Your task to perform on an android device: Is it going to rain tomorrow? Image 0: 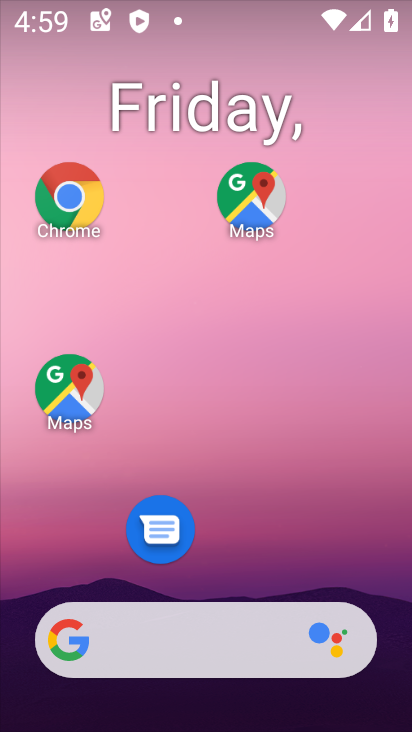
Step 0: drag from (272, 567) to (306, 107)
Your task to perform on an android device: Is it going to rain tomorrow? Image 1: 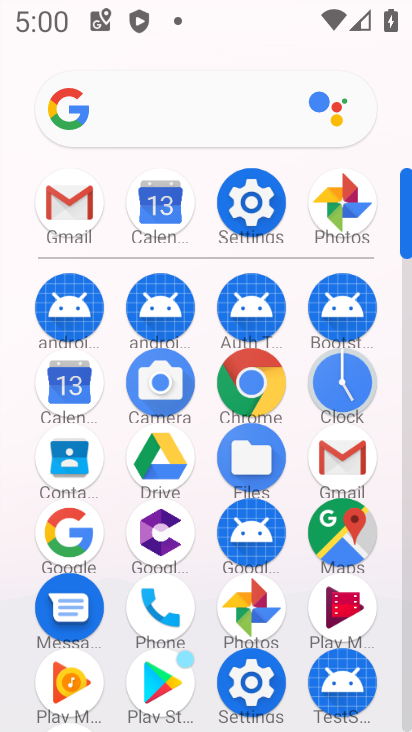
Step 1: click (74, 546)
Your task to perform on an android device: Is it going to rain tomorrow? Image 2: 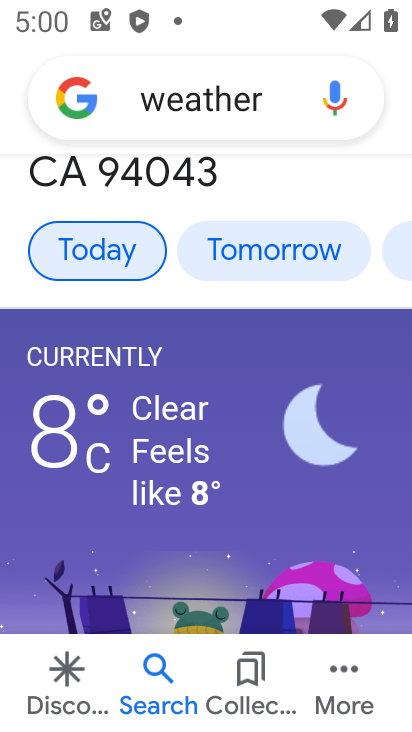
Step 2: click (289, 248)
Your task to perform on an android device: Is it going to rain tomorrow? Image 3: 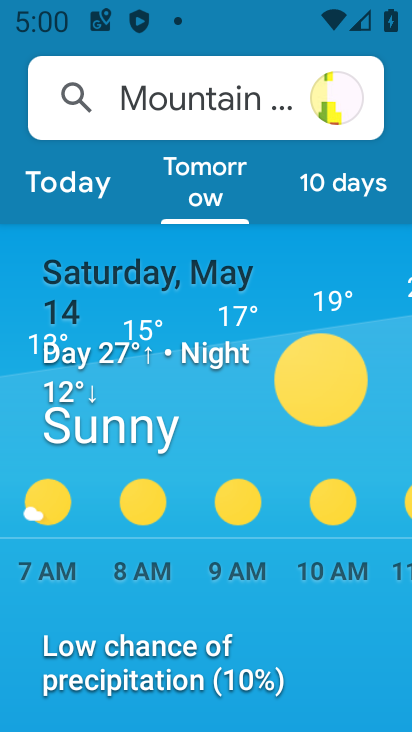
Step 3: task complete